Your task to perform on an android device: Clear all items from cart on newegg.com. Add "apple airpods pro" to the cart on newegg.com, then select checkout. Image 0: 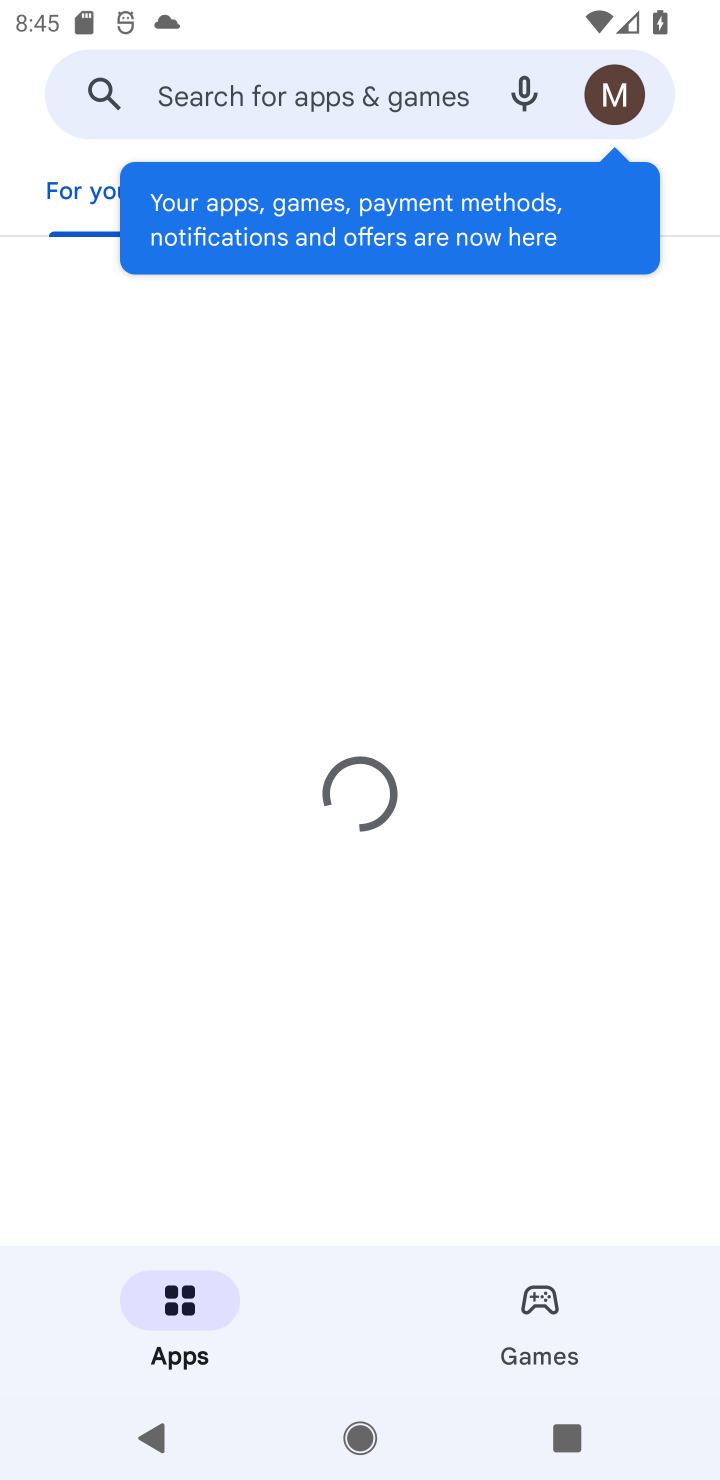
Step 0: press home button
Your task to perform on an android device: Clear all items from cart on newegg.com. Add "apple airpods pro" to the cart on newegg.com, then select checkout. Image 1: 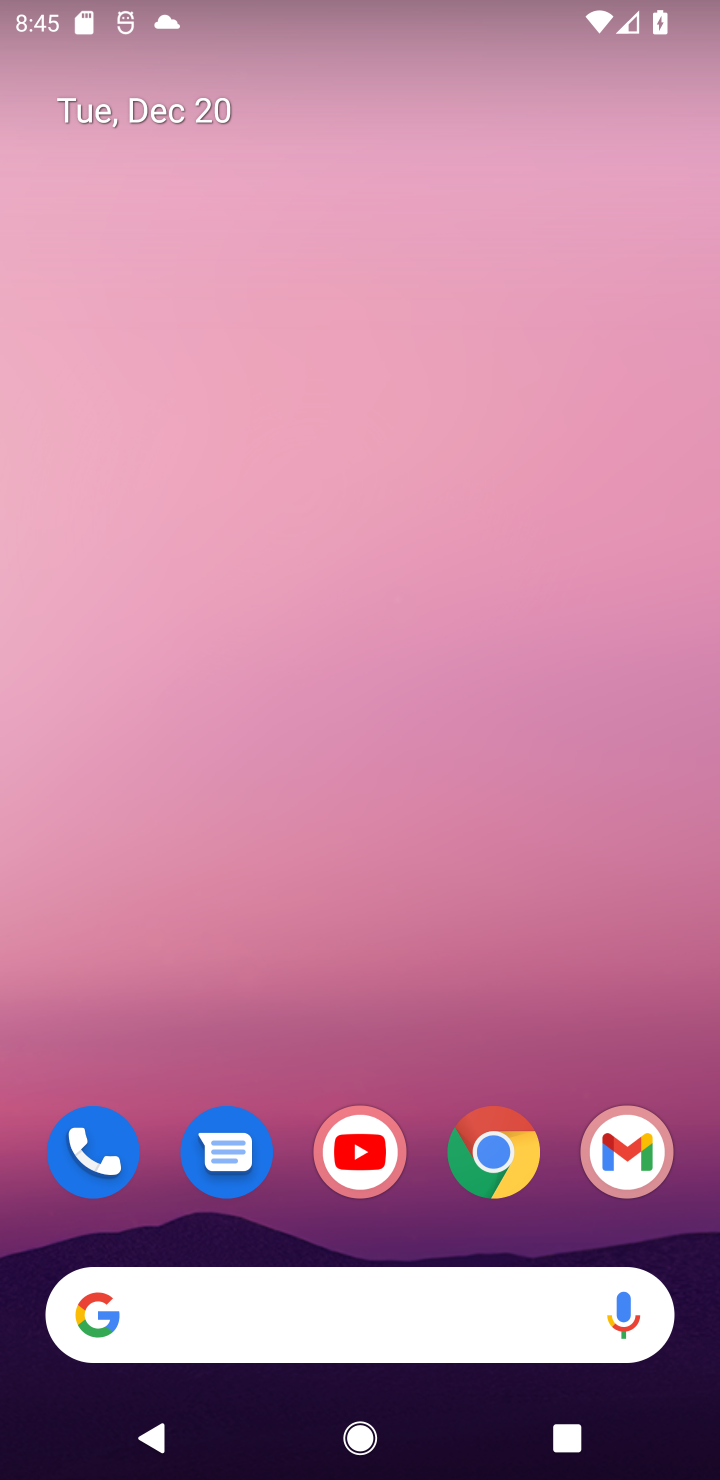
Step 1: click (479, 1152)
Your task to perform on an android device: Clear all items from cart on newegg.com. Add "apple airpods pro" to the cart on newegg.com, then select checkout. Image 2: 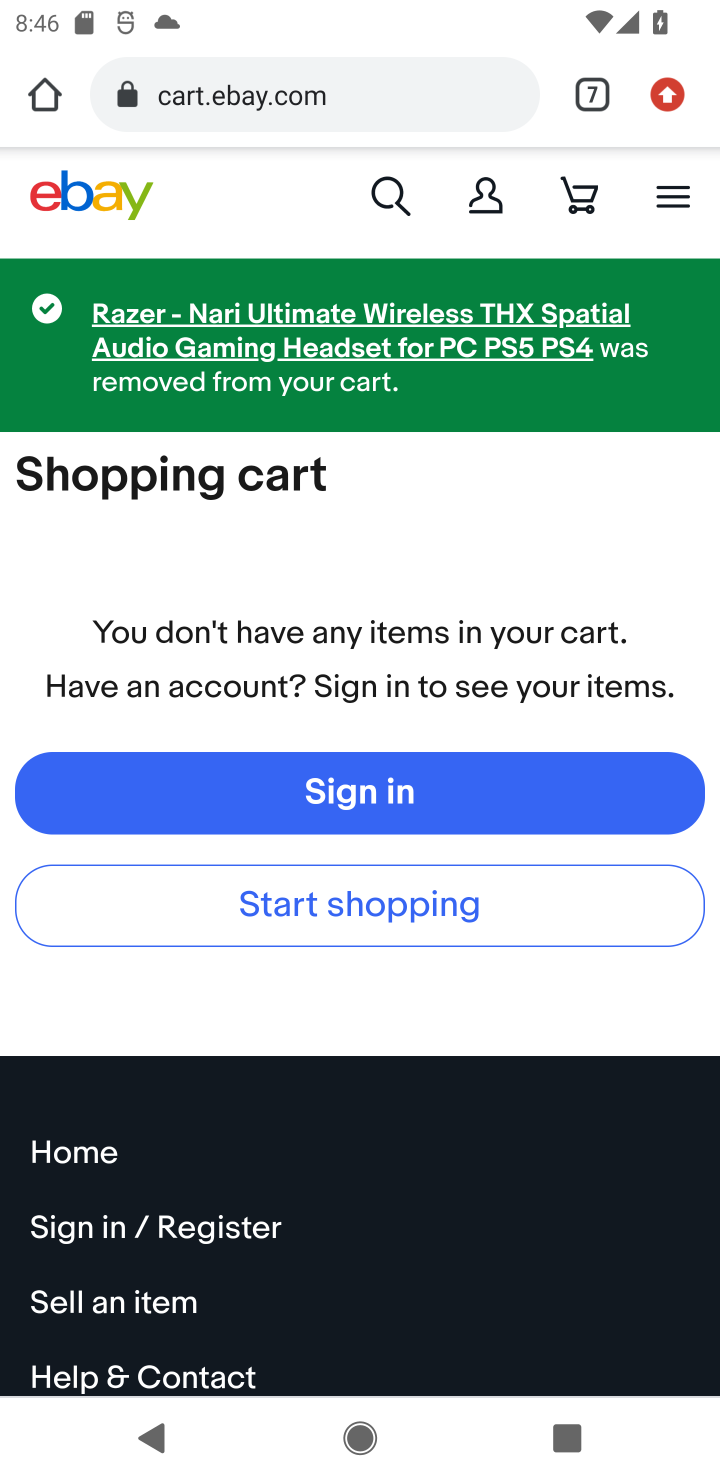
Step 2: click (592, 96)
Your task to perform on an android device: Clear all items from cart on newegg.com. Add "apple airpods pro" to the cart on newegg.com, then select checkout. Image 3: 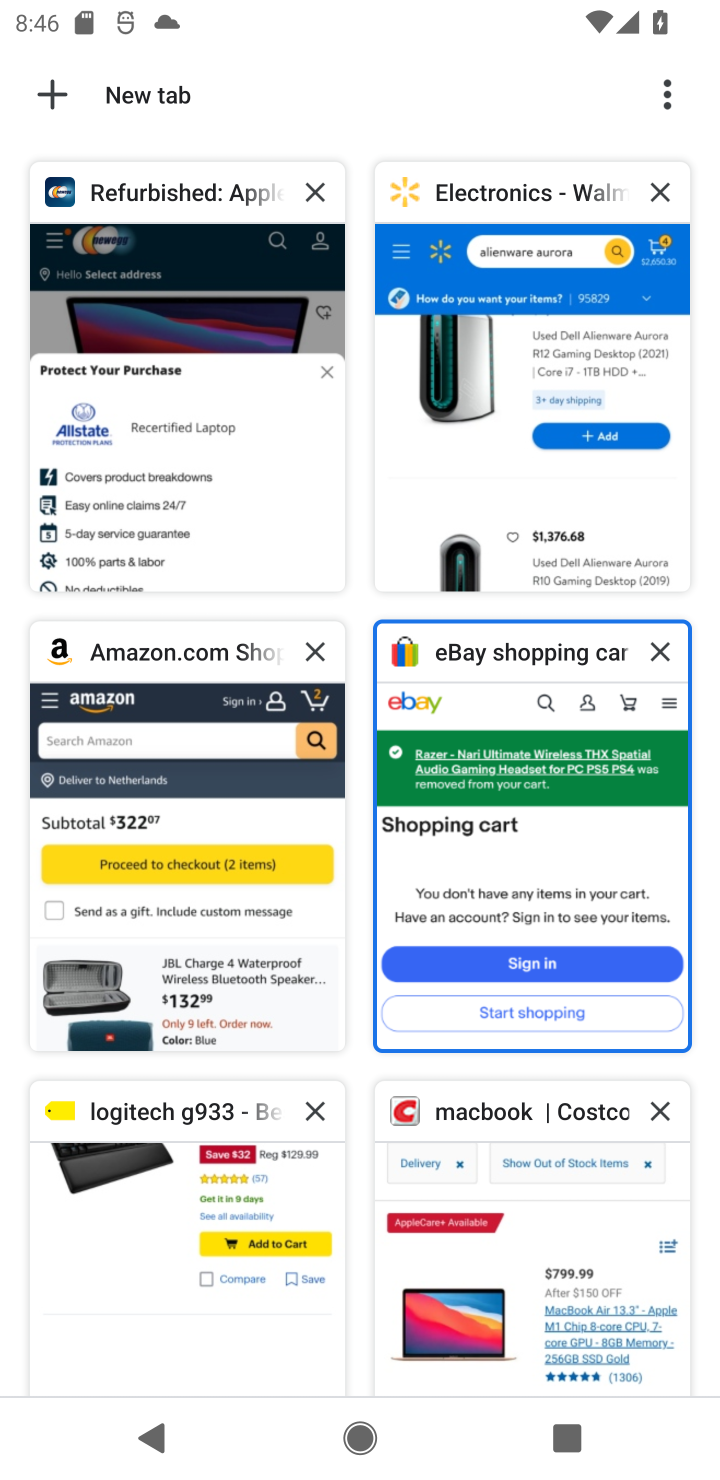
Step 3: click (180, 463)
Your task to perform on an android device: Clear all items from cart on newegg.com. Add "apple airpods pro" to the cart on newegg.com, then select checkout. Image 4: 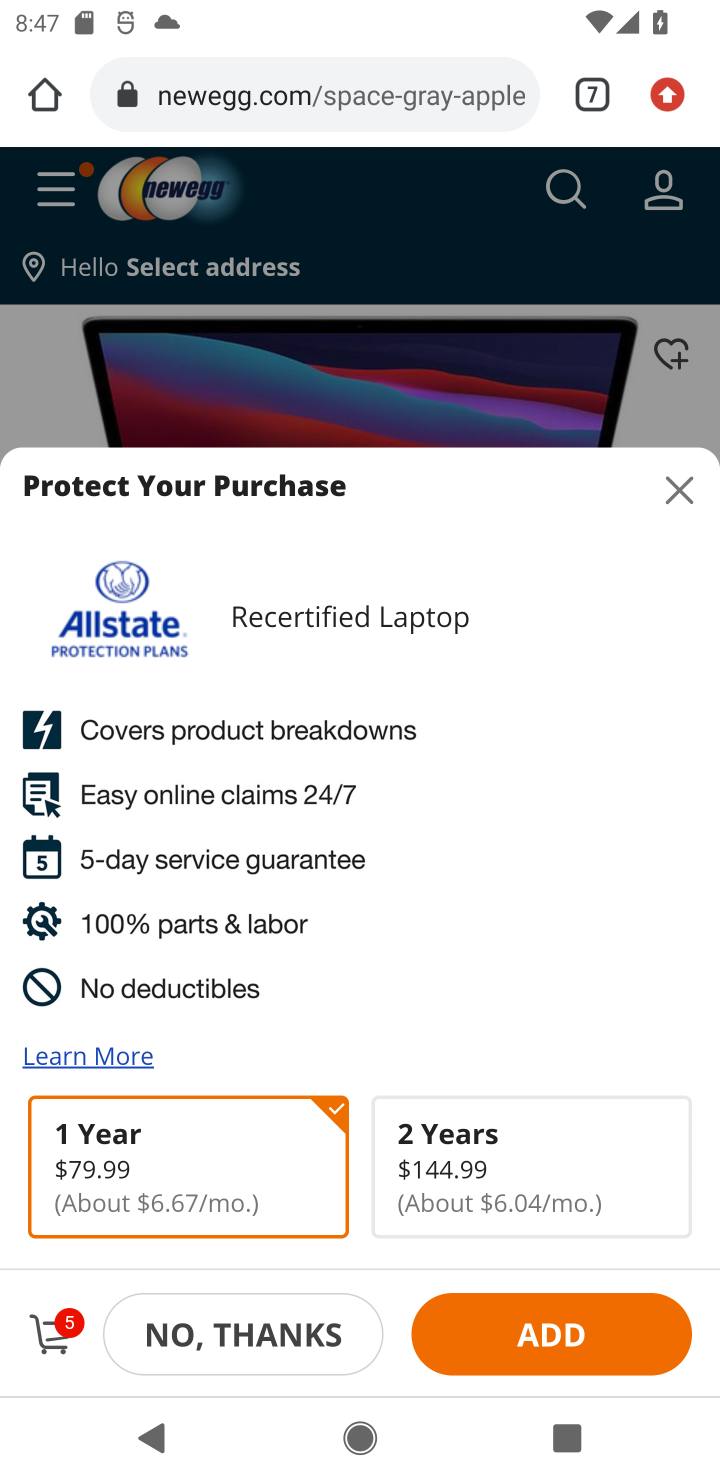
Step 4: click (676, 492)
Your task to perform on an android device: Clear all items from cart on newegg.com. Add "apple airpods pro" to the cart on newegg.com, then select checkout. Image 5: 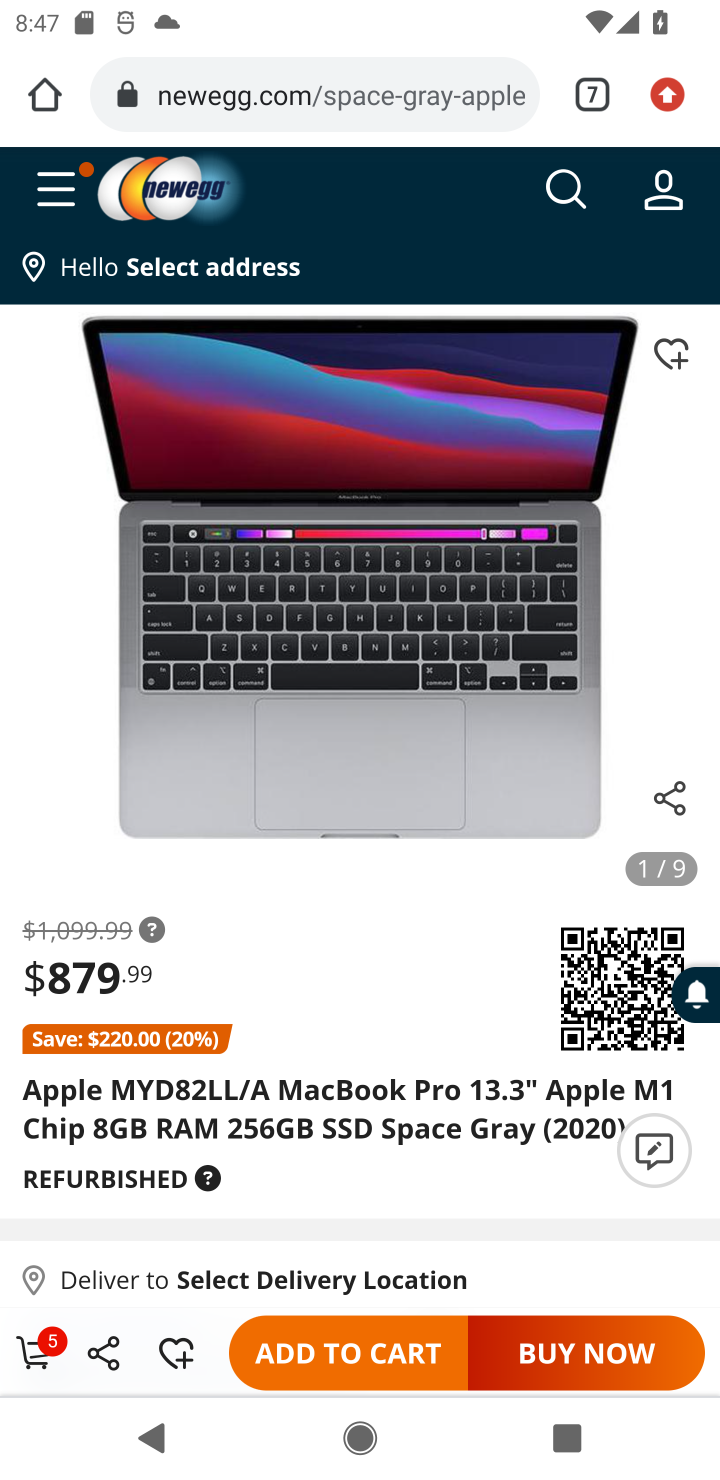
Step 5: click (53, 1345)
Your task to perform on an android device: Clear all items from cart on newegg.com. Add "apple airpods pro" to the cart on newegg.com, then select checkout. Image 6: 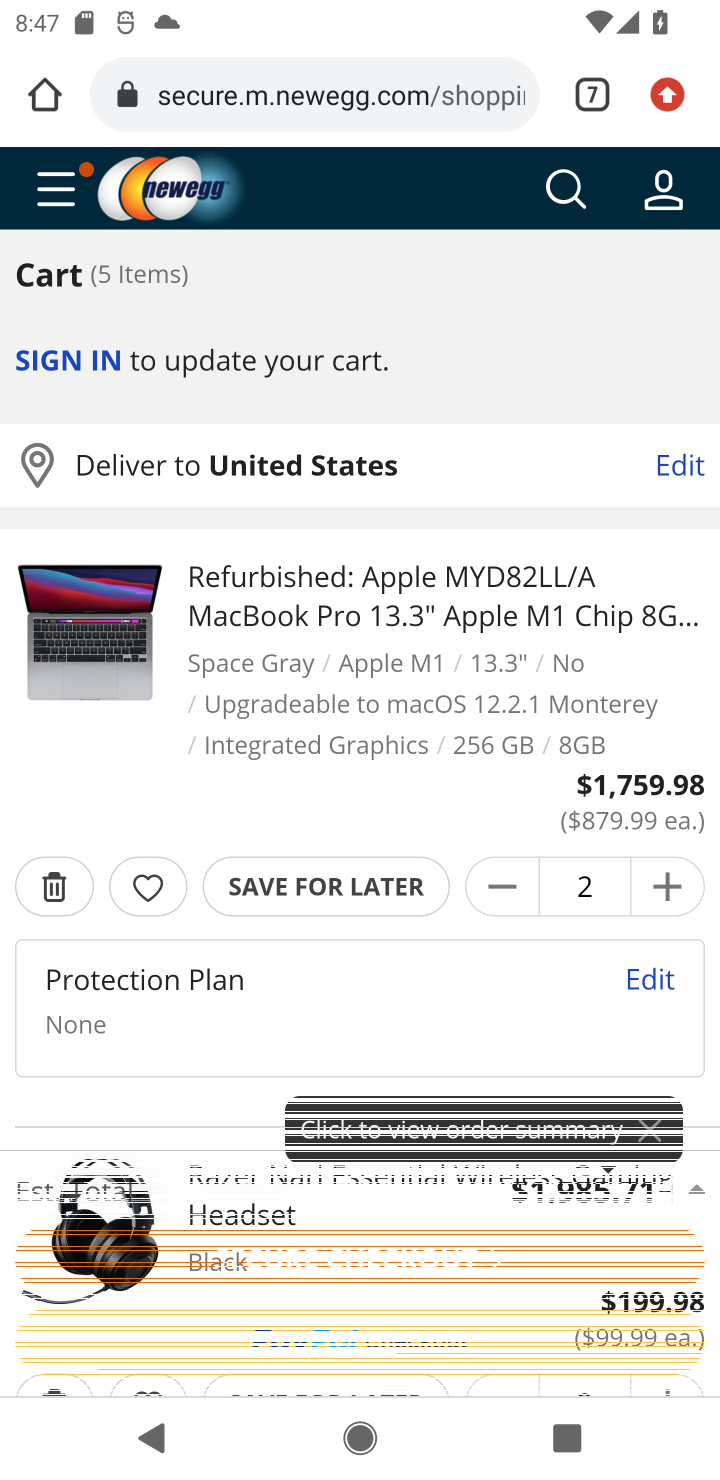
Step 6: click (568, 190)
Your task to perform on an android device: Clear all items from cart on newegg.com. Add "apple airpods pro" to the cart on newegg.com, then select checkout. Image 7: 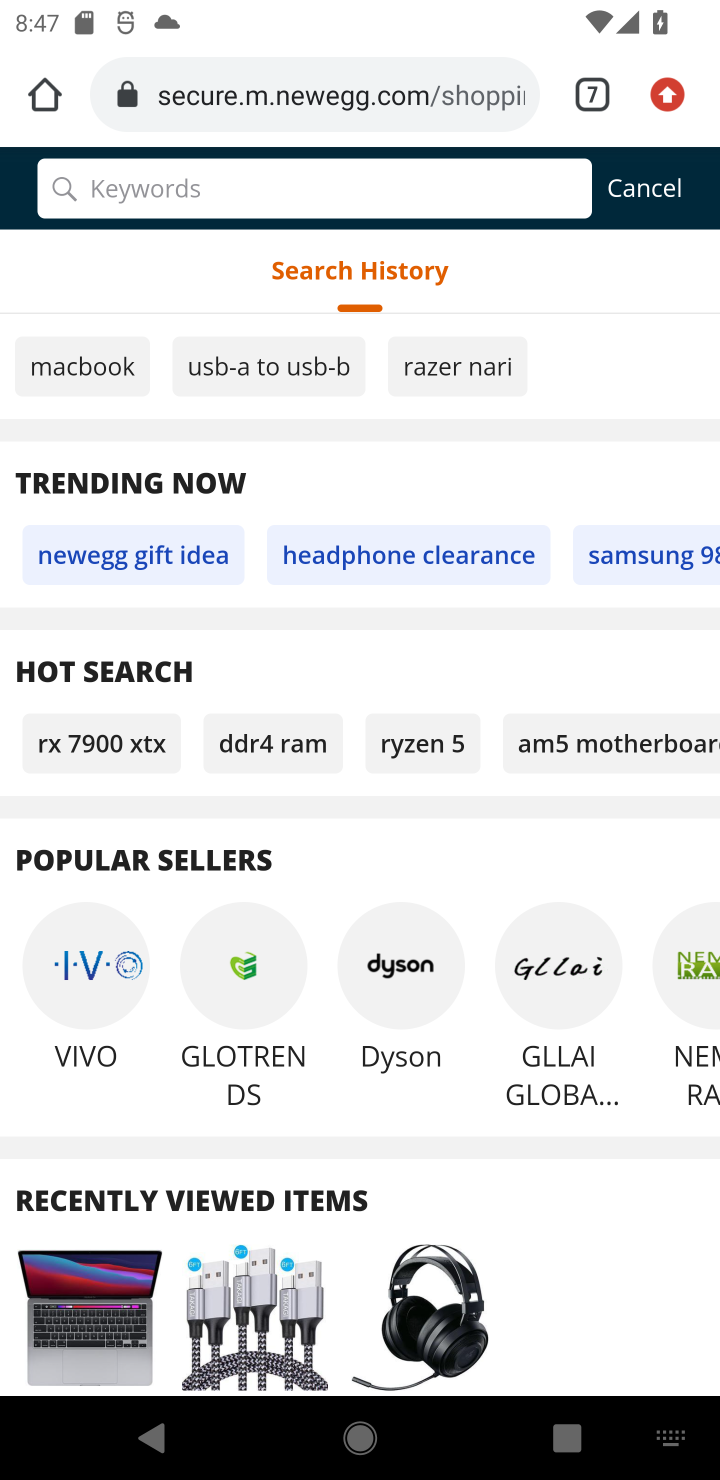
Step 7: type "apple airpods pro"
Your task to perform on an android device: Clear all items from cart on newegg.com. Add "apple airpods pro" to the cart on newegg.com, then select checkout. Image 8: 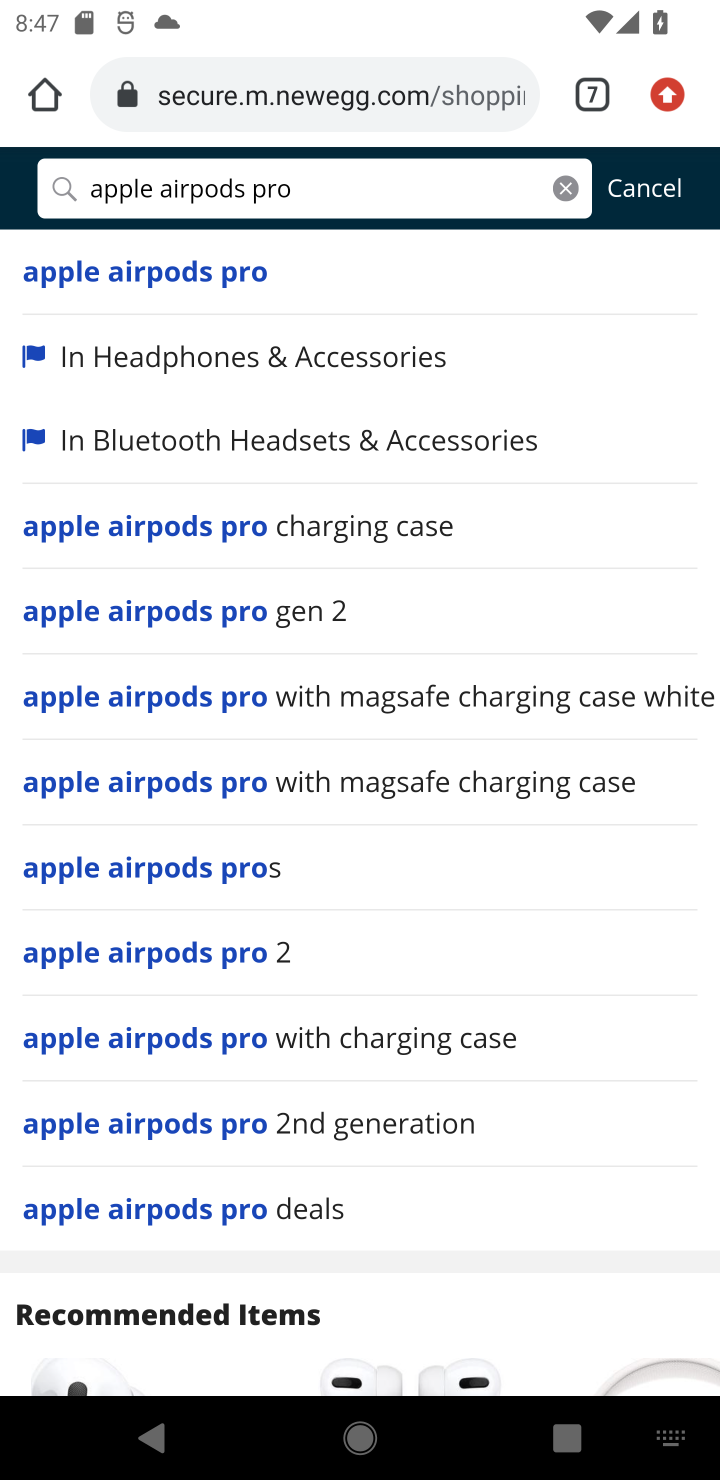
Step 8: press enter
Your task to perform on an android device: Clear all items from cart on newegg.com. Add "apple airpods pro" to the cart on newegg.com, then select checkout. Image 9: 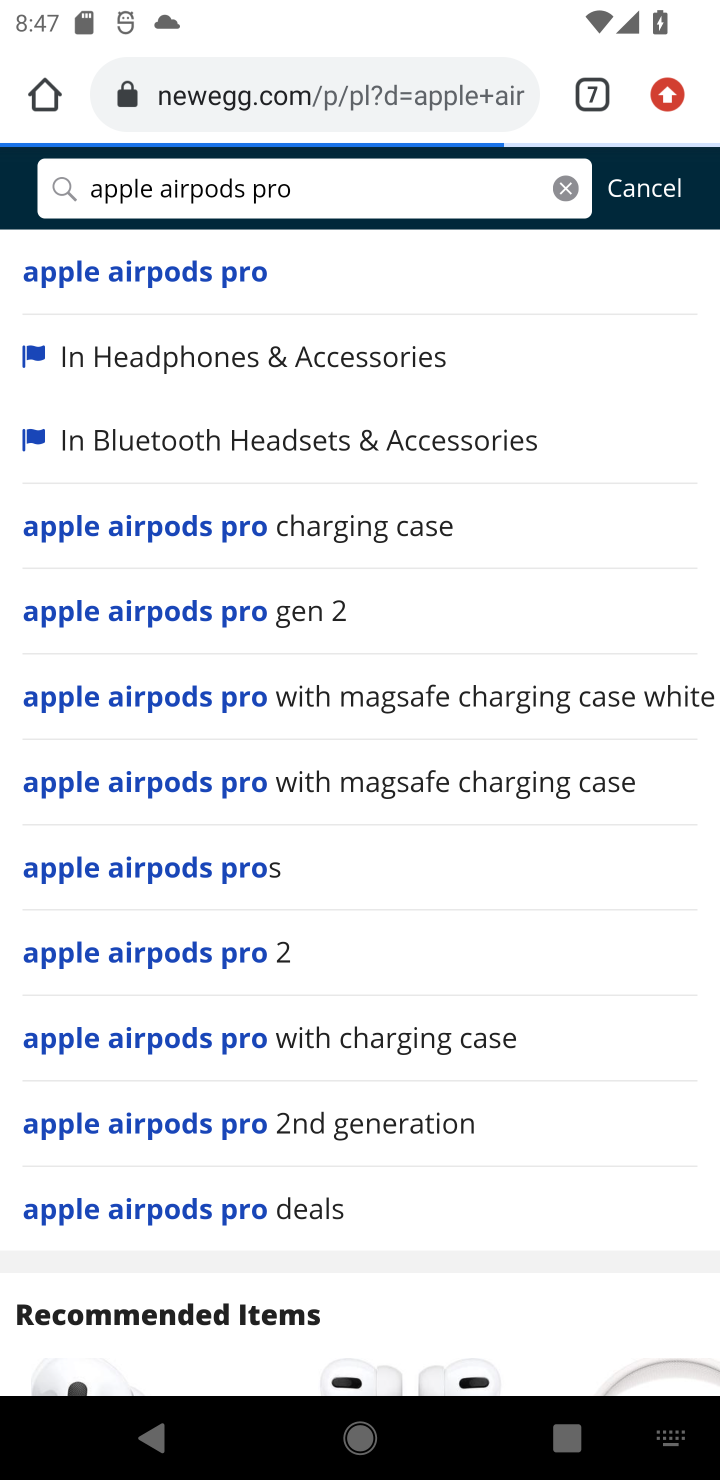
Step 9: click (142, 268)
Your task to perform on an android device: Clear all items from cart on newegg.com. Add "apple airpods pro" to the cart on newegg.com, then select checkout. Image 10: 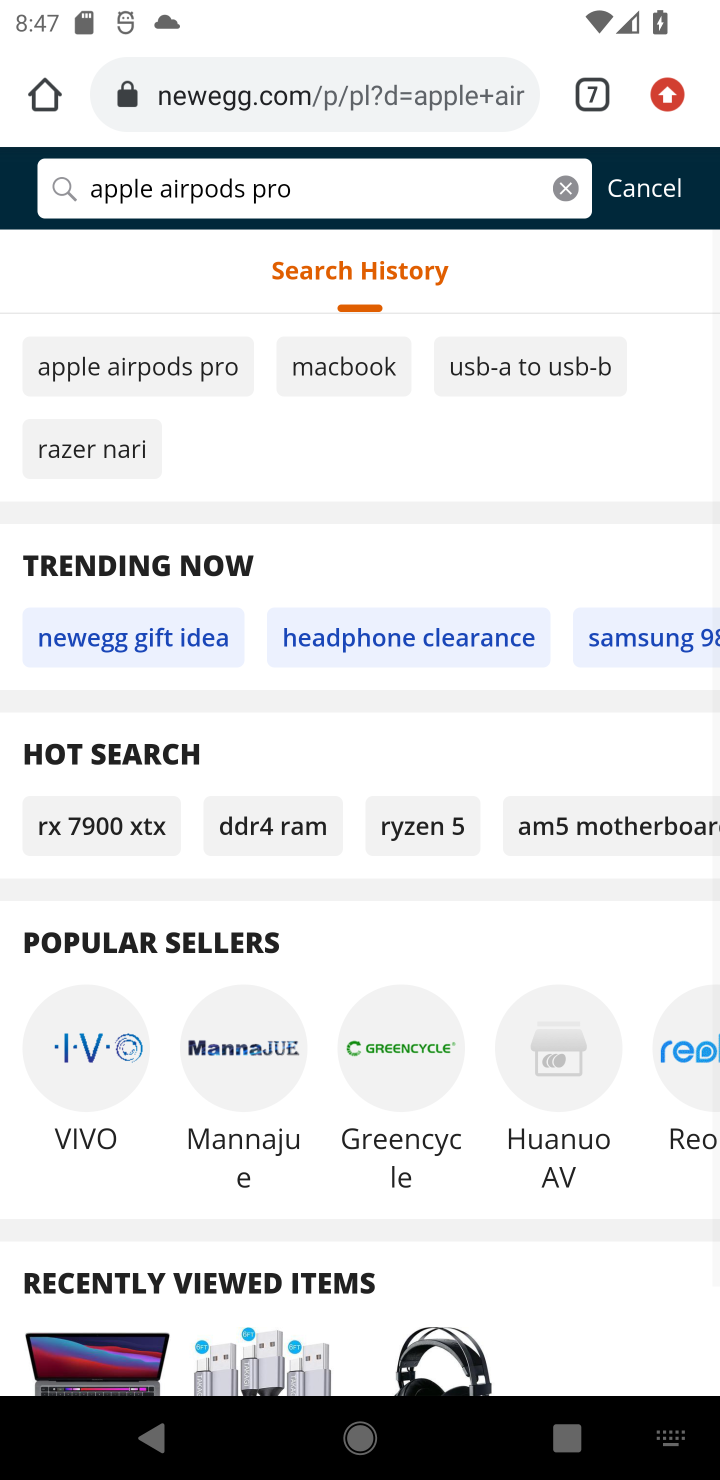
Step 10: drag from (273, 1121) to (420, 797)
Your task to perform on an android device: Clear all items from cart on newegg.com. Add "apple airpods pro" to the cart on newegg.com, then select checkout. Image 11: 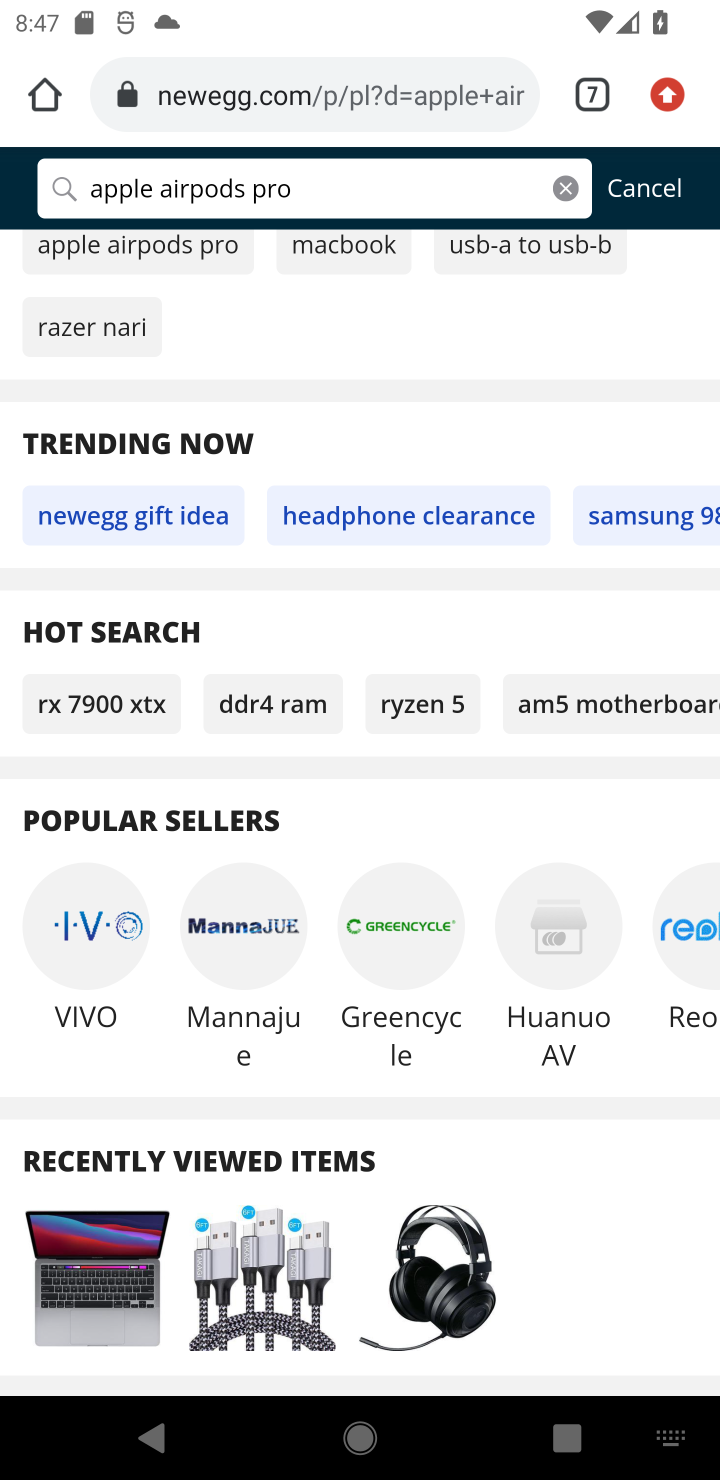
Step 11: drag from (510, 680) to (695, 89)
Your task to perform on an android device: Clear all items from cart on newegg.com. Add "apple airpods pro" to the cart on newegg.com, then select checkout. Image 12: 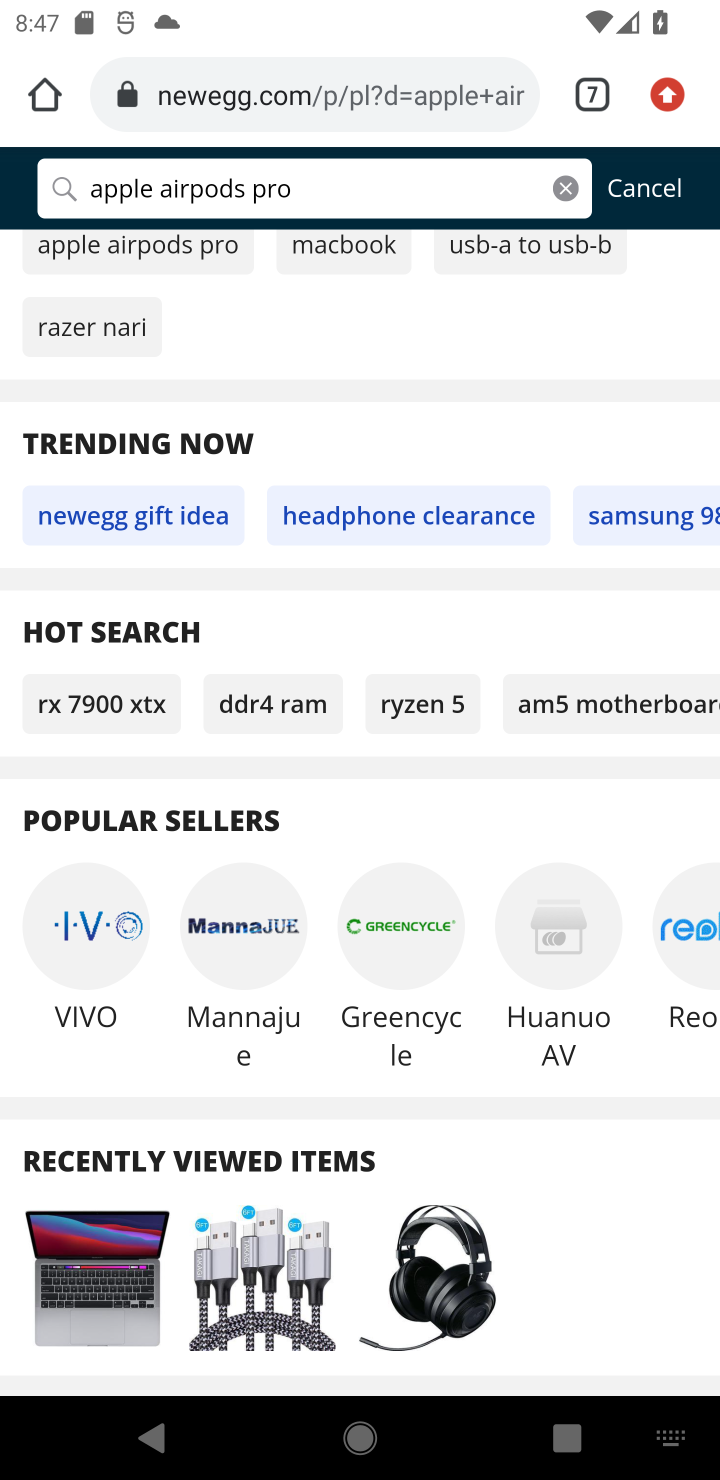
Step 12: press enter
Your task to perform on an android device: Clear all items from cart on newegg.com. Add "apple airpods pro" to the cart on newegg.com, then select checkout. Image 13: 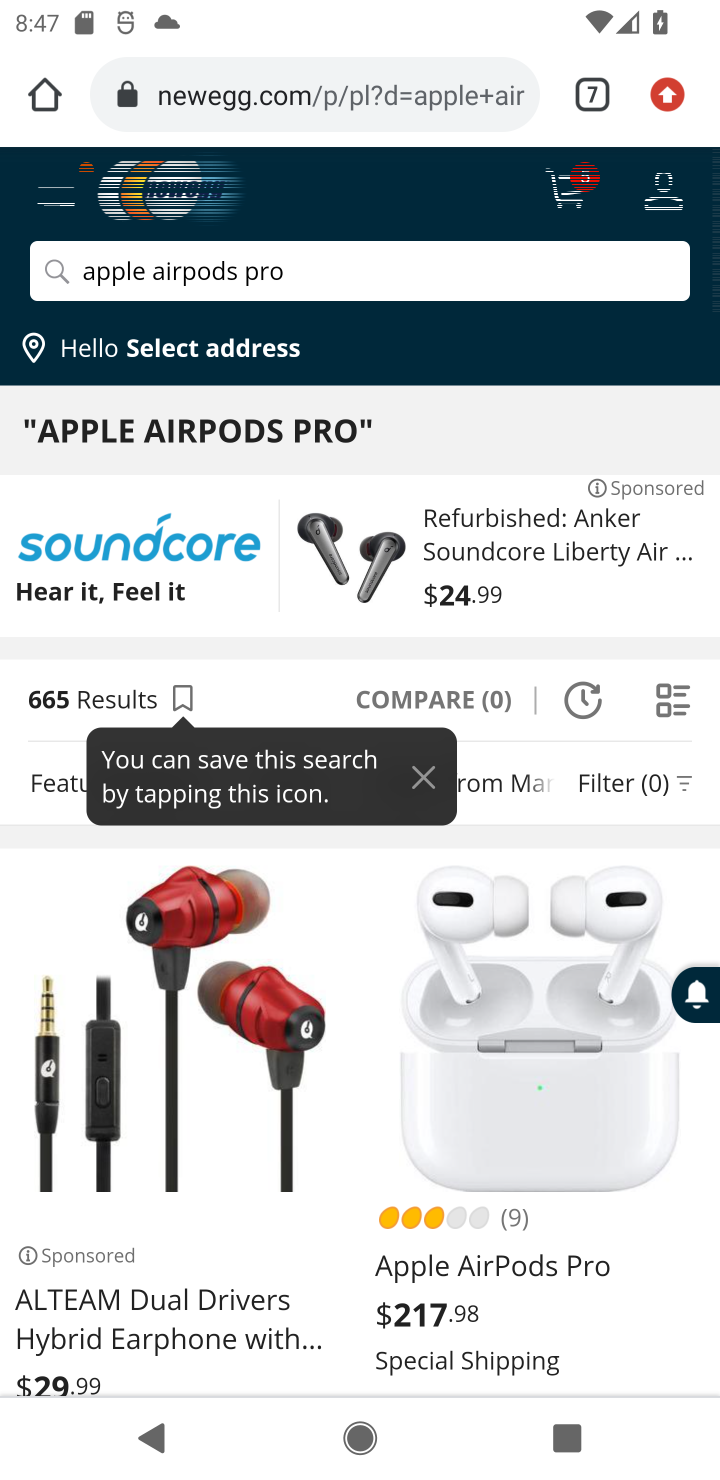
Step 13: click (553, 1257)
Your task to perform on an android device: Clear all items from cart on newegg.com. Add "apple airpods pro" to the cart on newegg.com, then select checkout. Image 14: 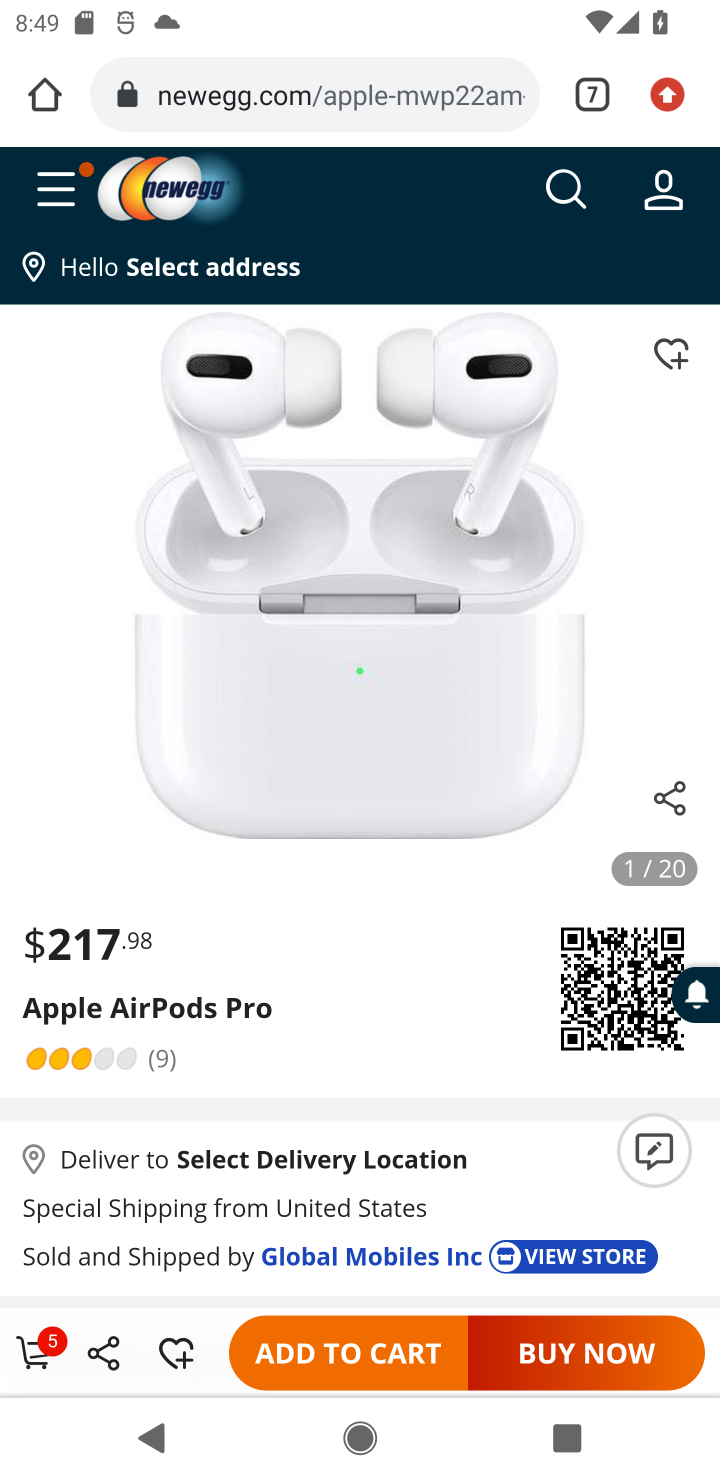
Step 14: click (345, 1354)
Your task to perform on an android device: Clear all items from cart on newegg.com. Add "apple airpods pro" to the cart on newegg.com, then select checkout. Image 15: 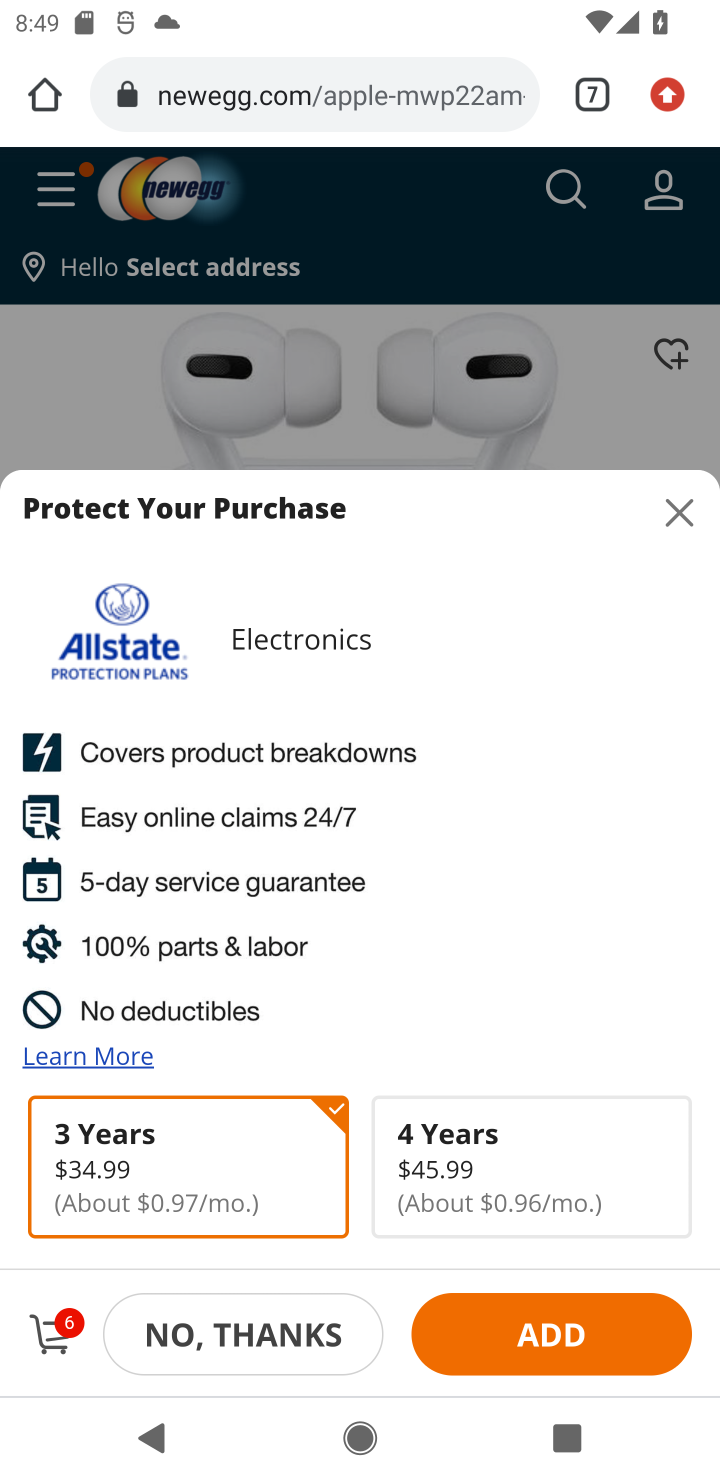
Step 15: task complete